Your task to perform on an android device: open app "Pandora - Music & Podcasts" Image 0: 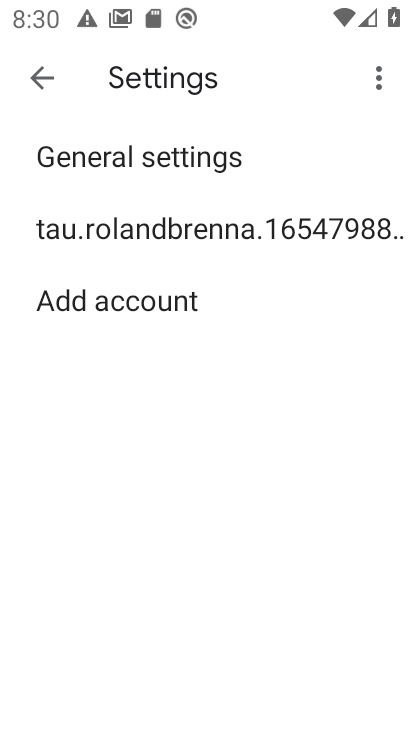
Step 0: press home button
Your task to perform on an android device: open app "Pandora - Music & Podcasts" Image 1: 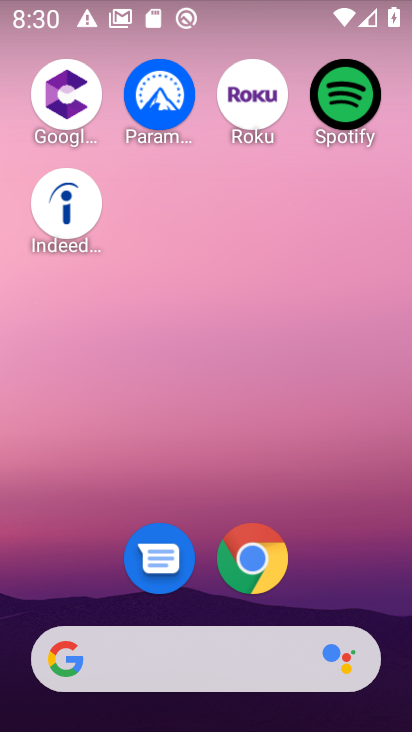
Step 1: drag from (184, 646) to (170, 48)
Your task to perform on an android device: open app "Pandora - Music & Podcasts" Image 2: 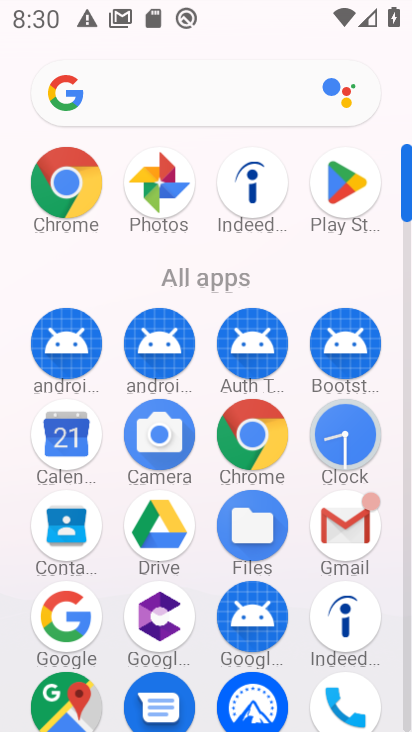
Step 2: click (322, 182)
Your task to perform on an android device: open app "Pandora - Music & Podcasts" Image 3: 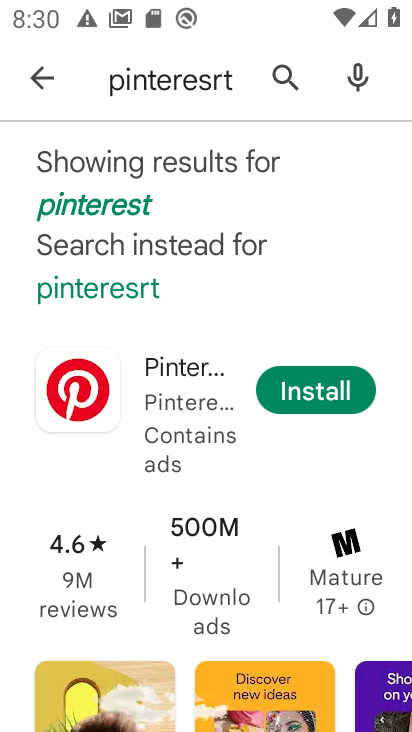
Step 3: click (279, 87)
Your task to perform on an android device: open app "Pandora - Music & Podcasts" Image 4: 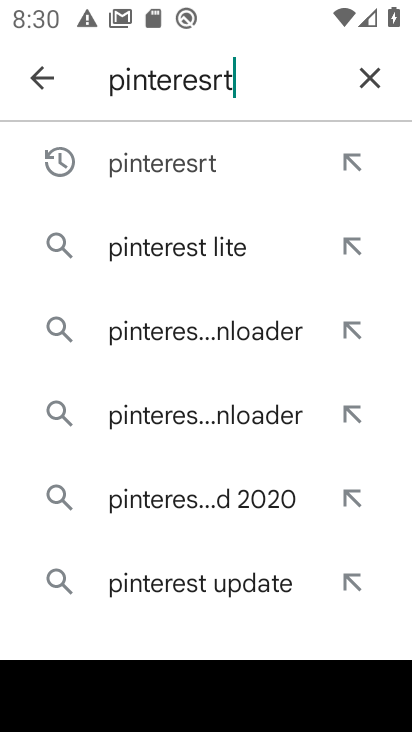
Step 4: click (365, 76)
Your task to perform on an android device: open app "Pandora - Music & Podcasts" Image 5: 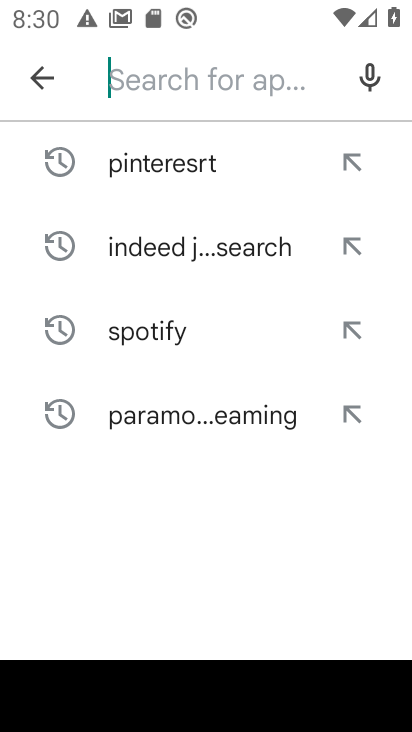
Step 5: type "pandora"
Your task to perform on an android device: open app "Pandora - Music & Podcasts" Image 6: 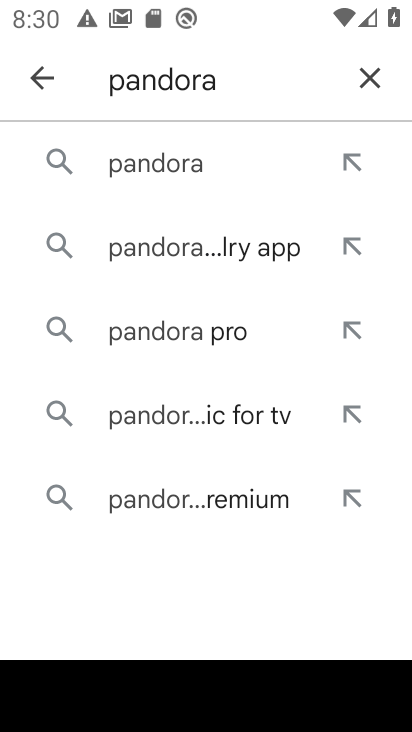
Step 6: click (187, 167)
Your task to perform on an android device: open app "Pandora - Music & Podcasts" Image 7: 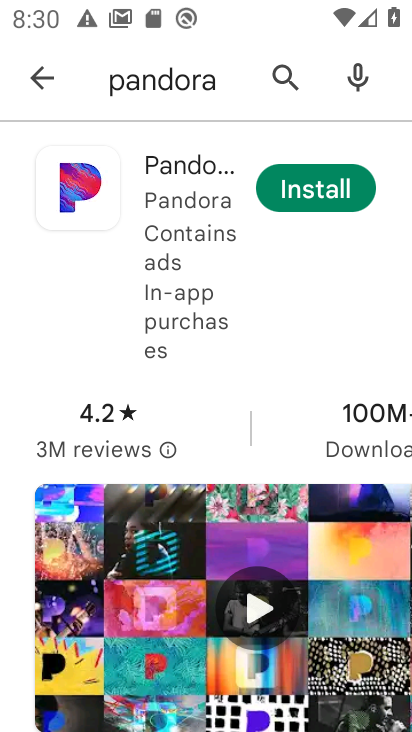
Step 7: task complete